Your task to perform on an android device: all mails in gmail Image 0: 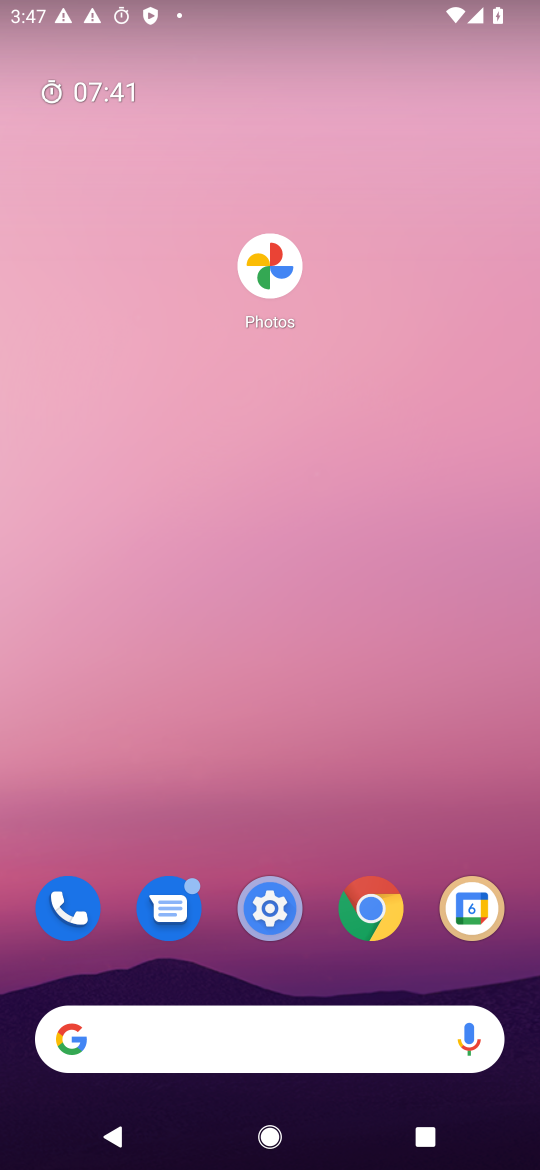
Step 0: drag from (275, 984) to (284, 253)
Your task to perform on an android device: all mails in gmail Image 1: 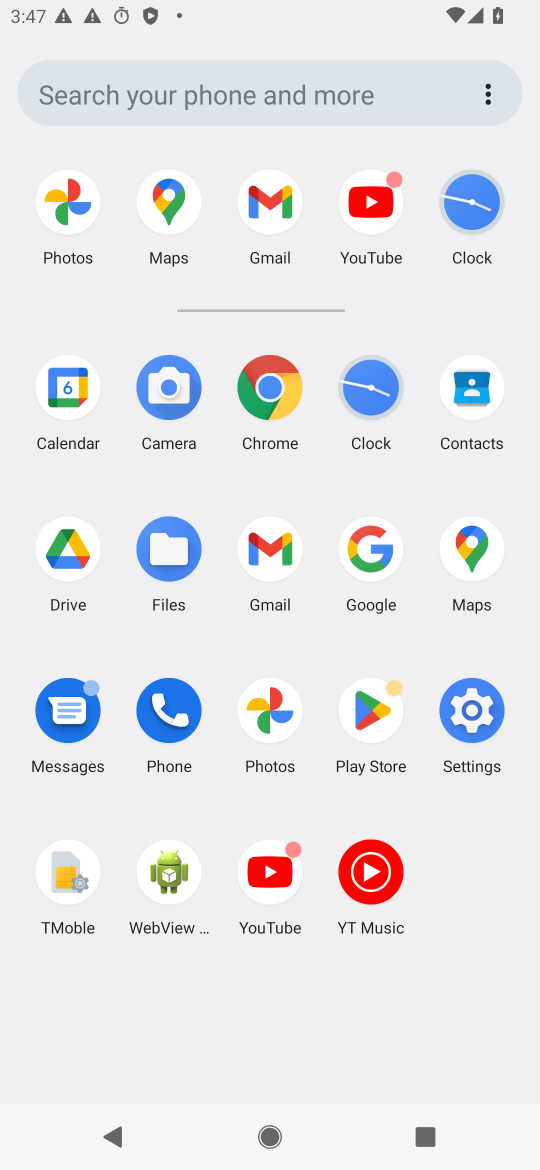
Step 1: click (267, 587)
Your task to perform on an android device: all mails in gmail Image 2: 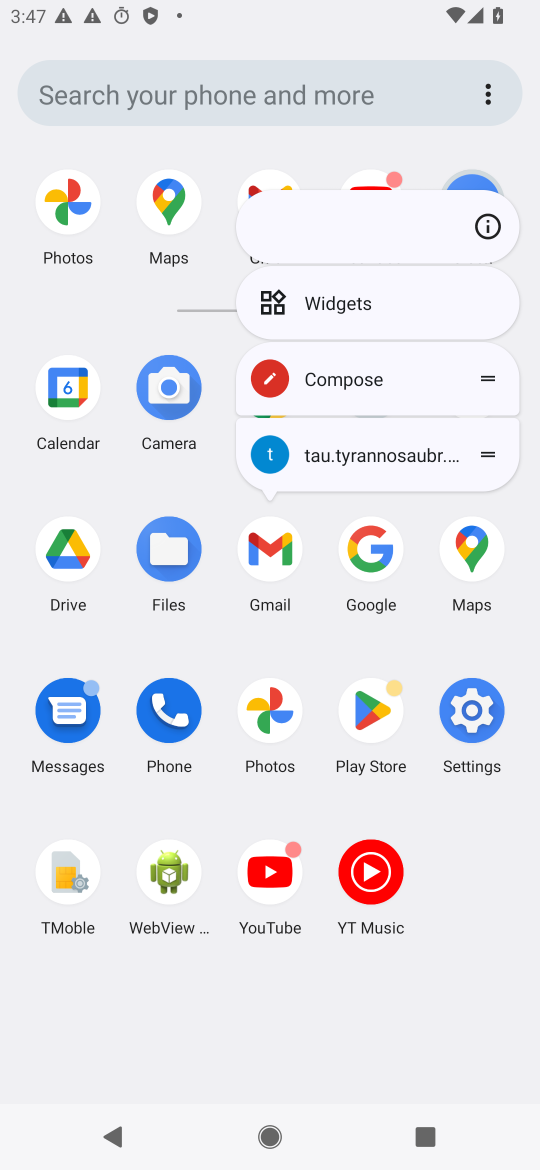
Step 2: click (260, 563)
Your task to perform on an android device: all mails in gmail Image 3: 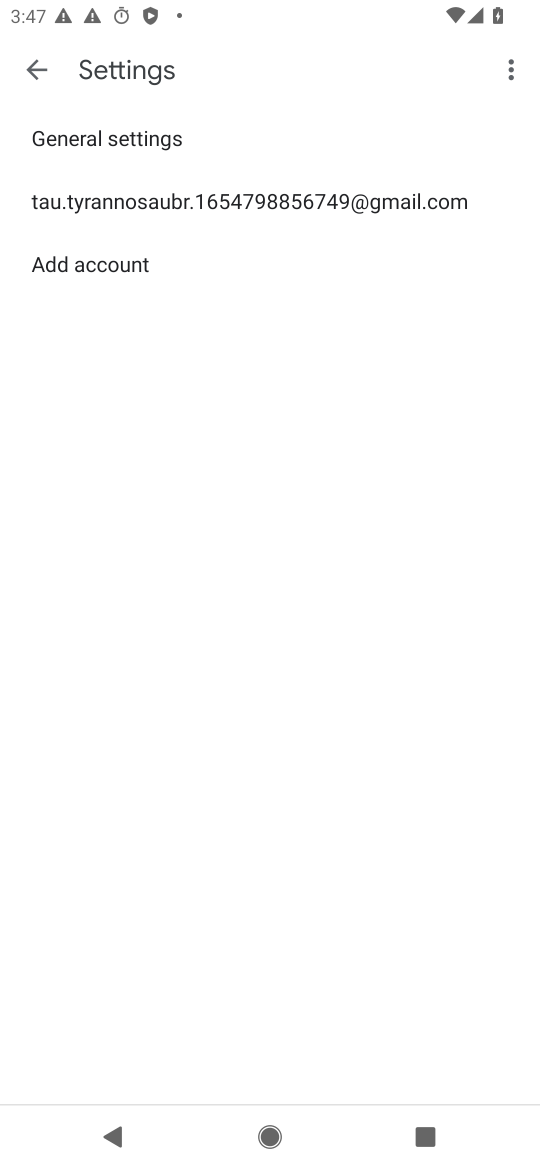
Step 3: click (22, 72)
Your task to perform on an android device: all mails in gmail Image 4: 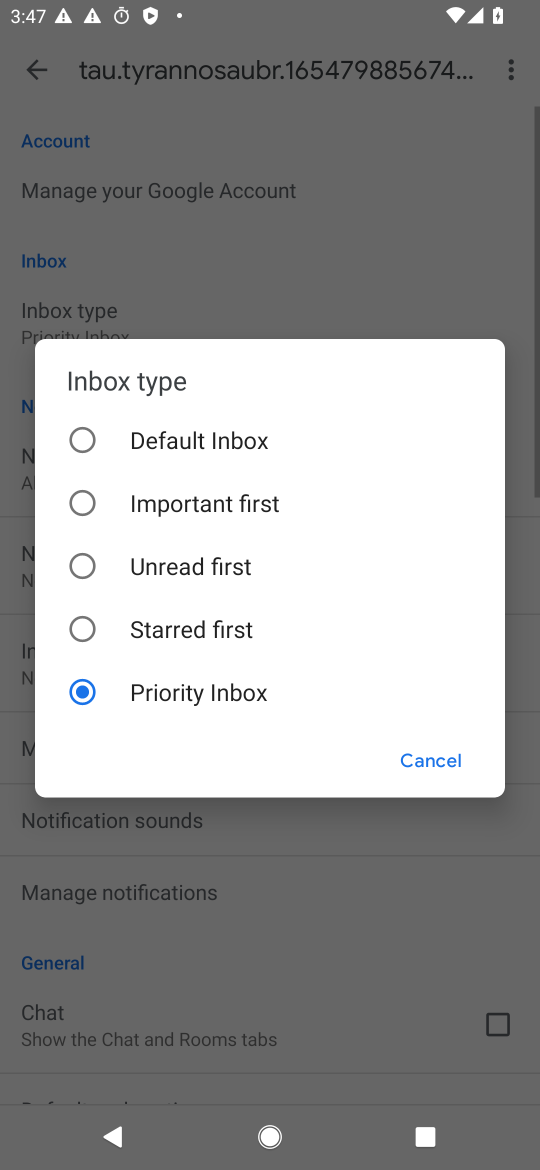
Step 4: click (217, 224)
Your task to perform on an android device: all mails in gmail Image 5: 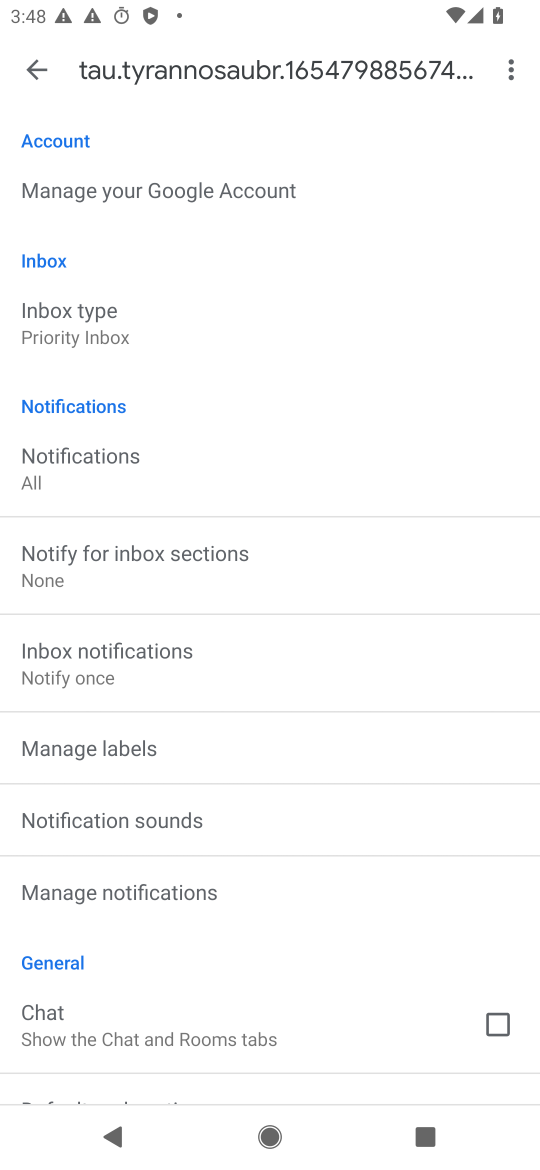
Step 5: click (32, 69)
Your task to perform on an android device: all mails in gmail Image 6: 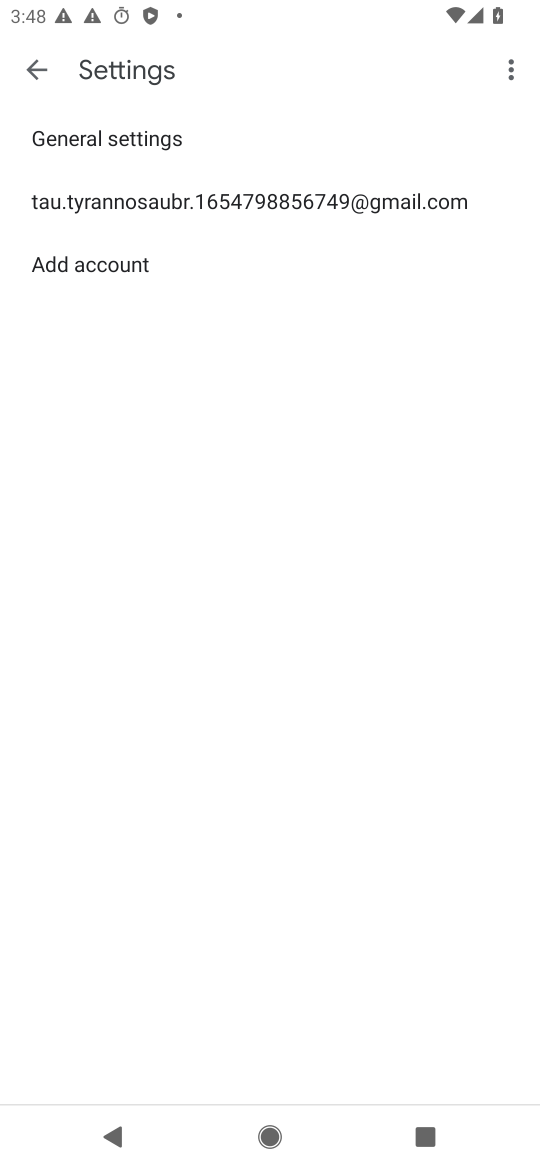
Step 6: click (37, 67)
Your task to perform on an android device: all mails in gmail Image 7: 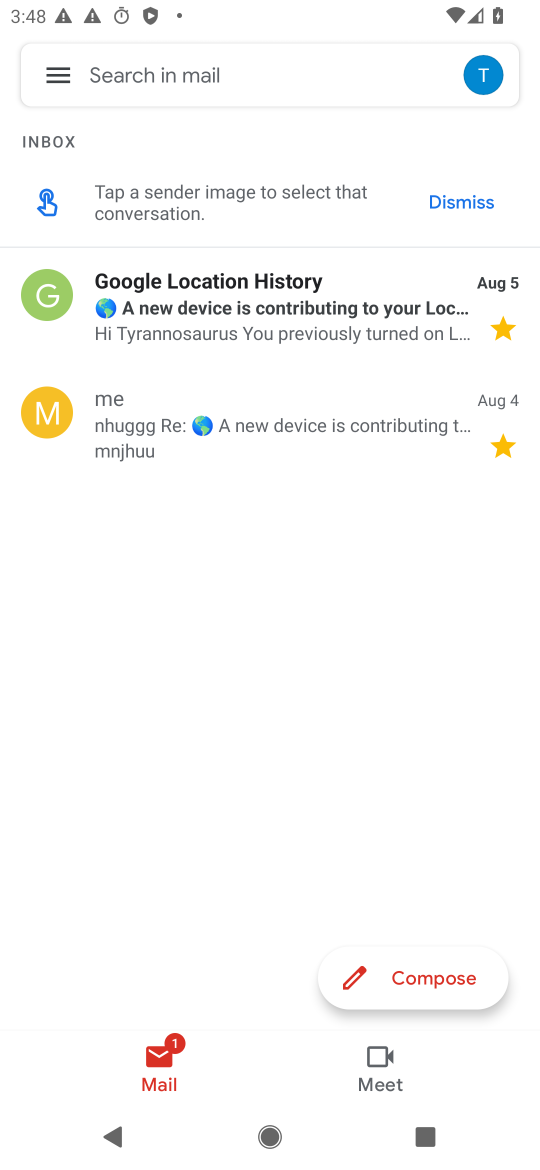
Step 7: click (38, 62)
Your task to perform on an android device: all mails in gmail Image 8: 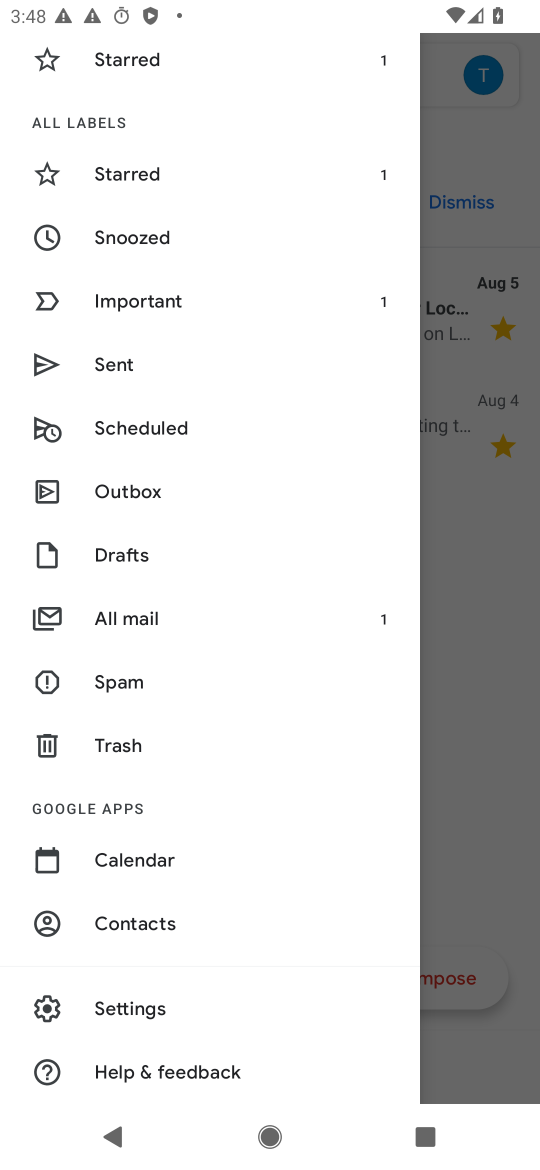
Step 8: click (132, 622)
Your task to perform on an android device: all mails in gmail Image 9: 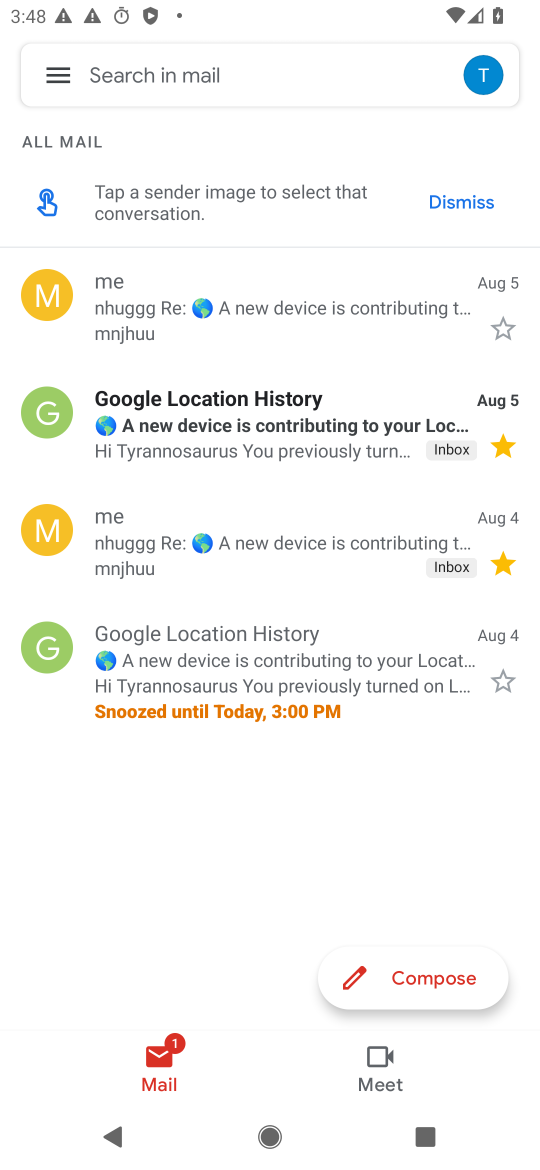
Step 9: task complete